Your task to perform on an android device: change the upload size in google photos Image 0: 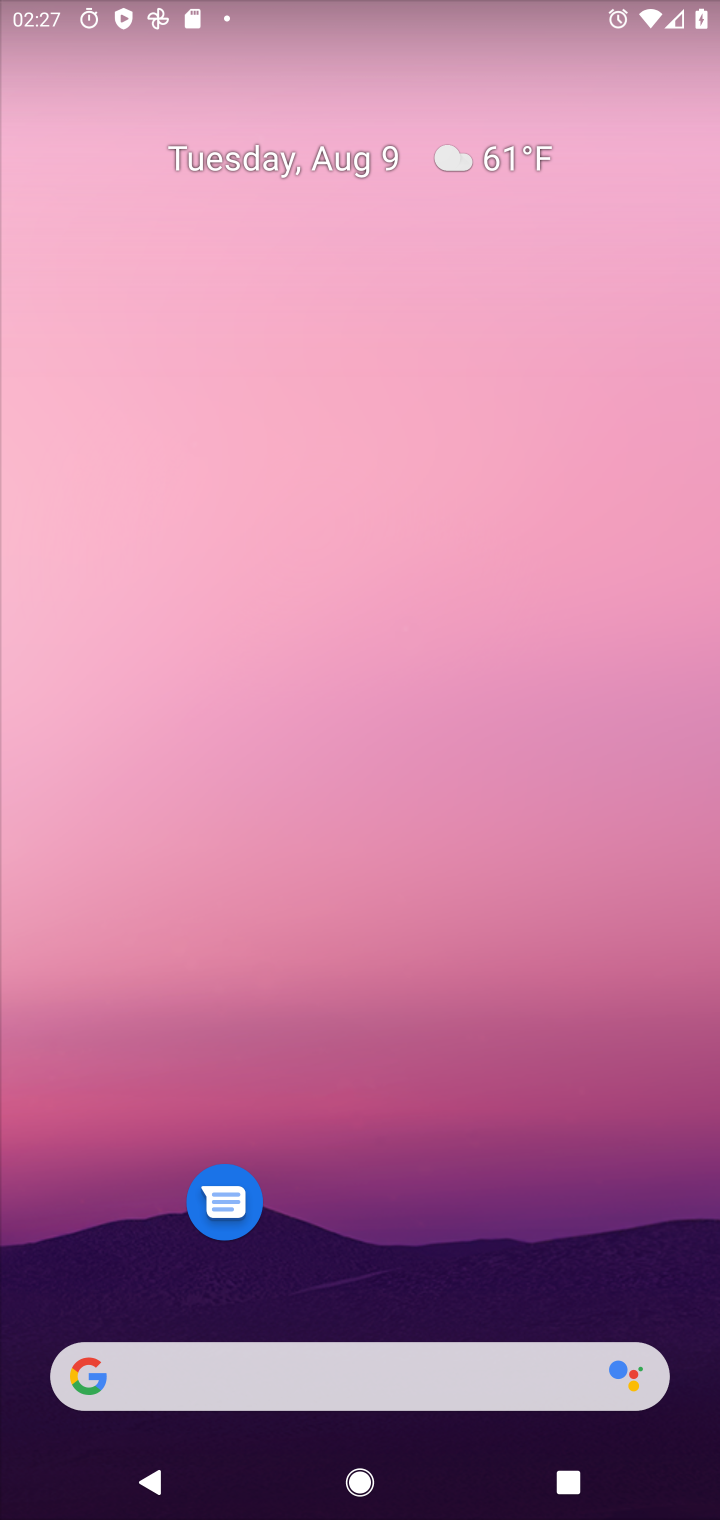
Step 0: drag from (387, 455) to (384, 51)
Your task to perform on an android device: change the upload size in google photos Image 1: 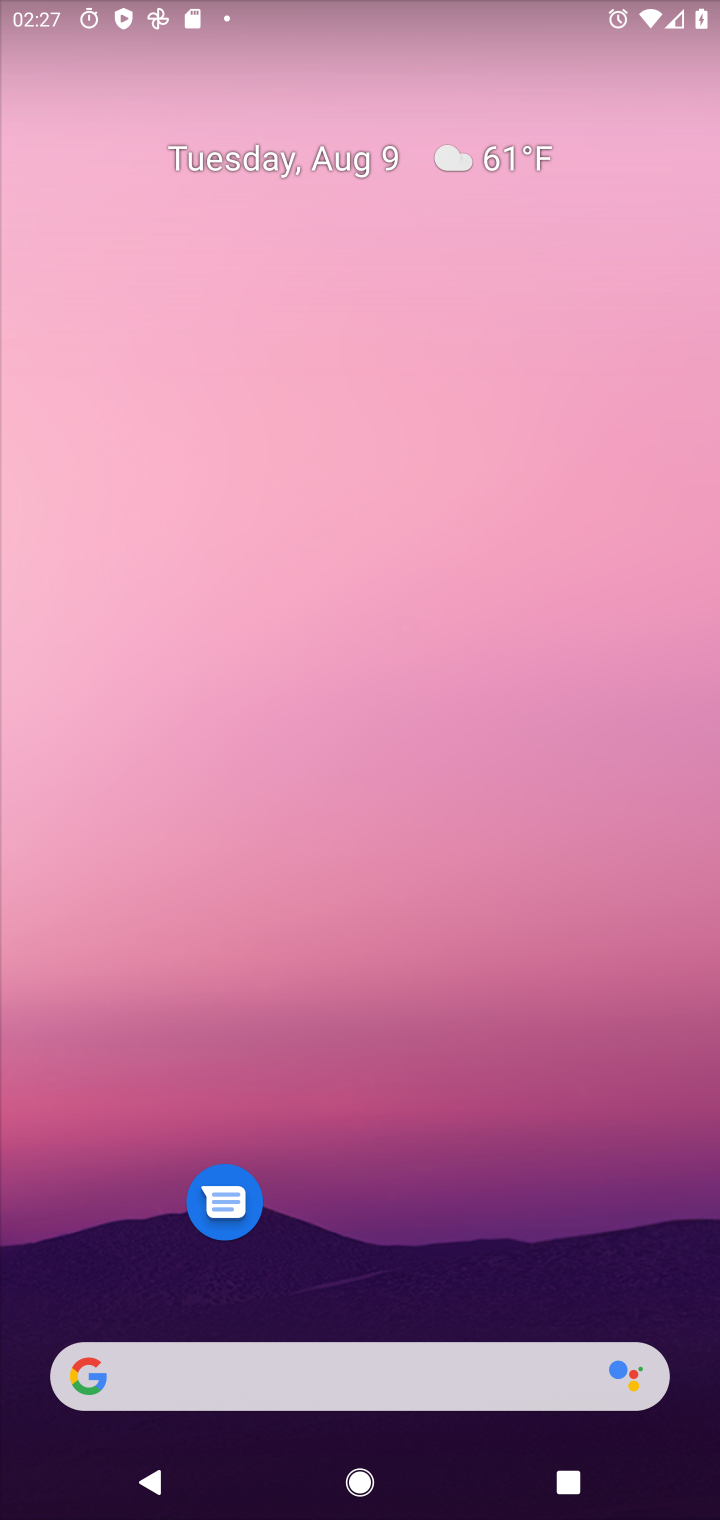
Step 1: drag from (585, 1388) to (341, 270)
Your task to perform on an android device: change the upload size in google photos Image 2: 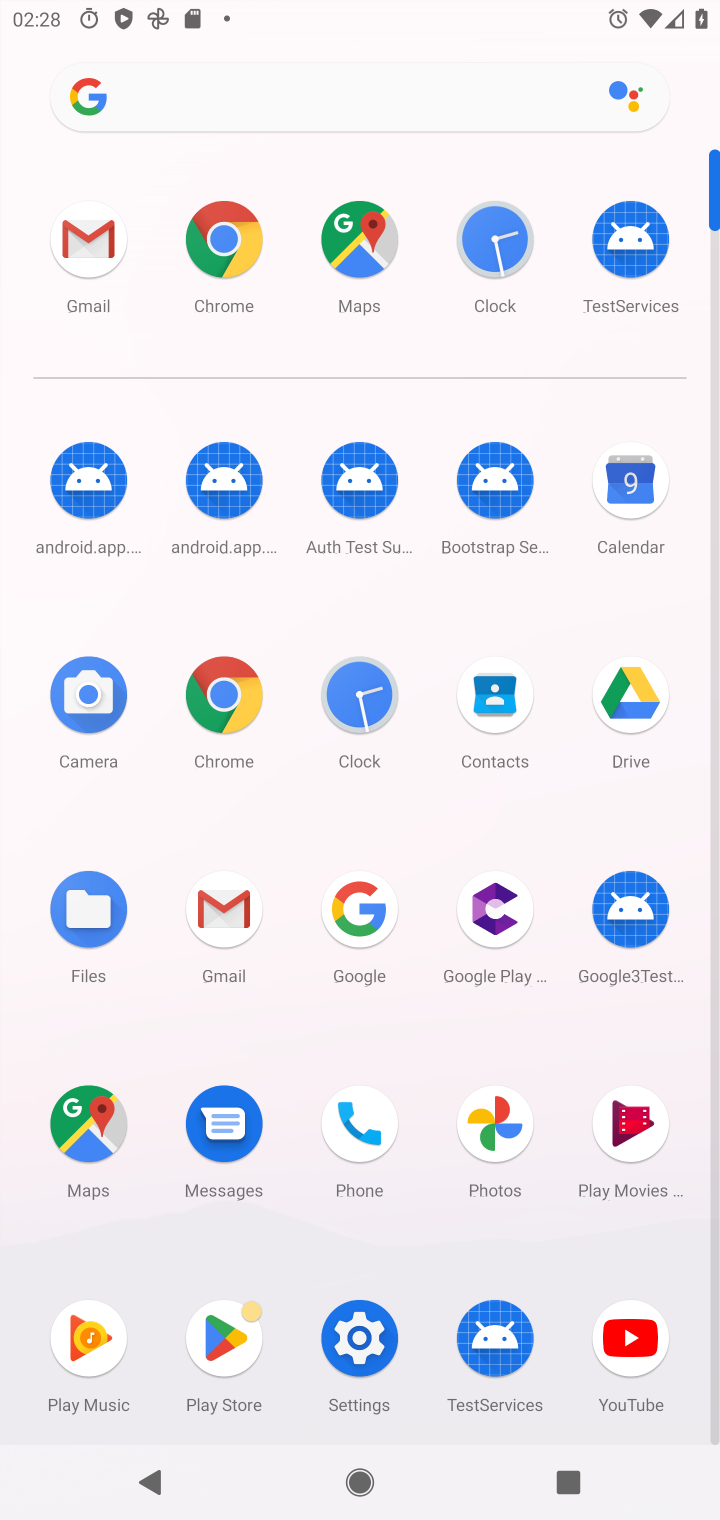
Step 2: click (486, 1113)
Your task to perform on an android device: change the upload size in google photos Image 3: 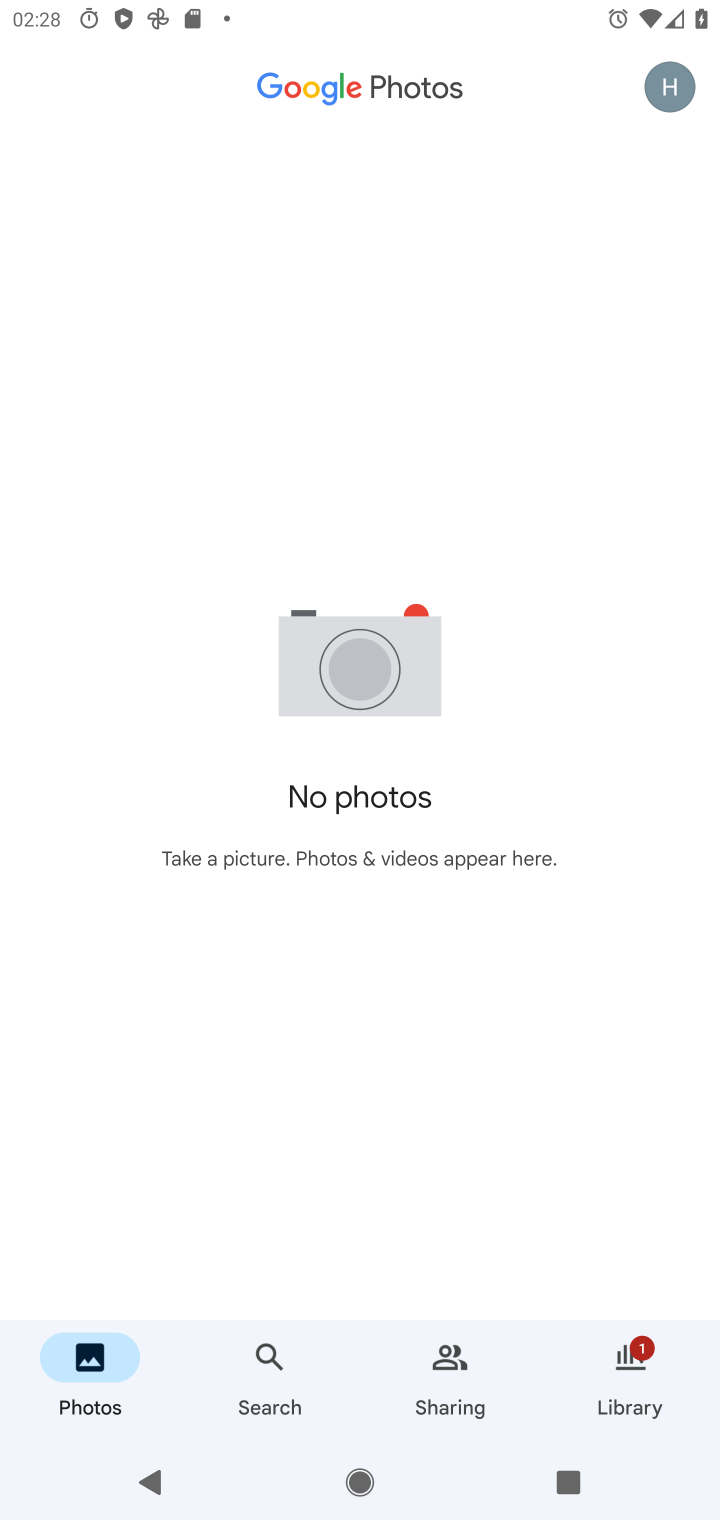
Step 3: click (680, 76)
Your task to perform on an android device: change the upload size in google photos Image 4: 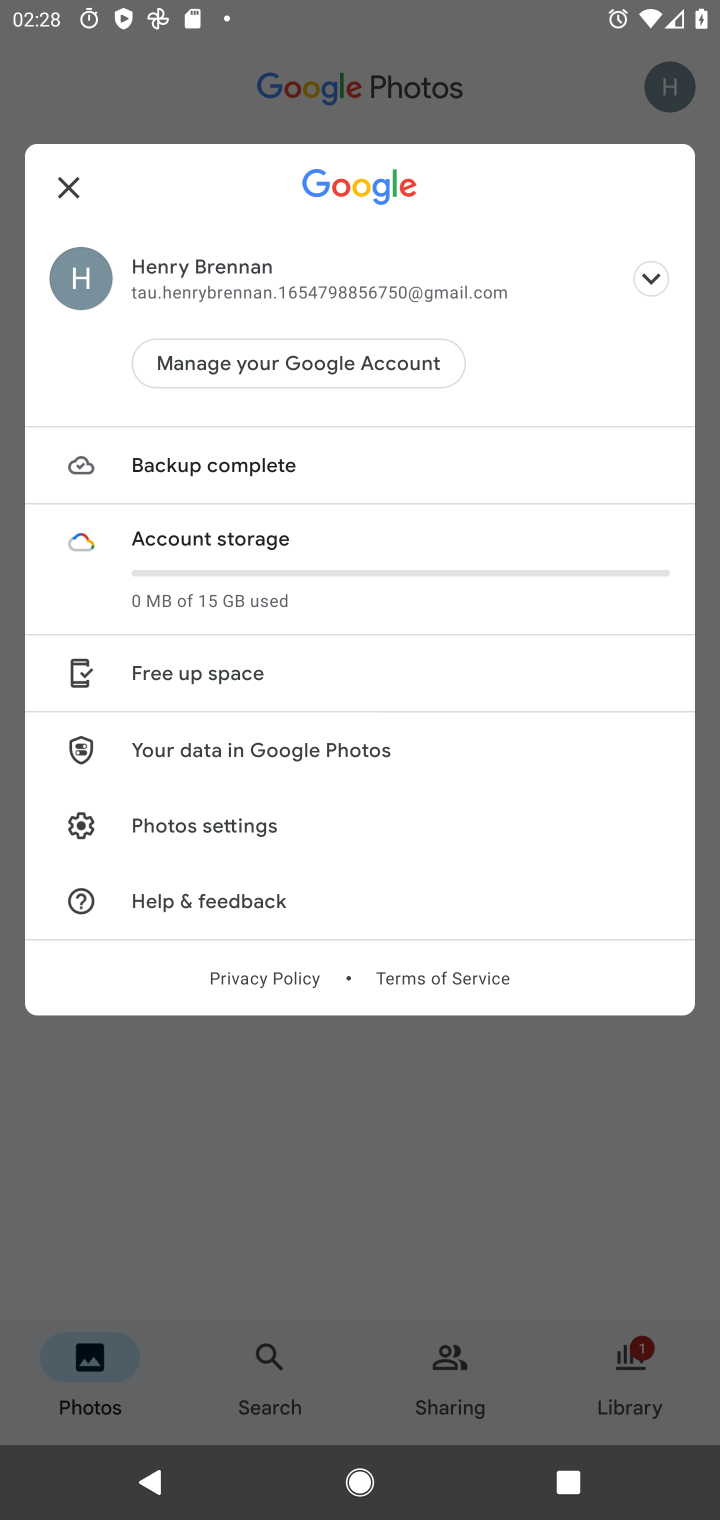
Step 4: click (114, 803)
Your task to perform on an android device: change the upload size in google photos Image 5: 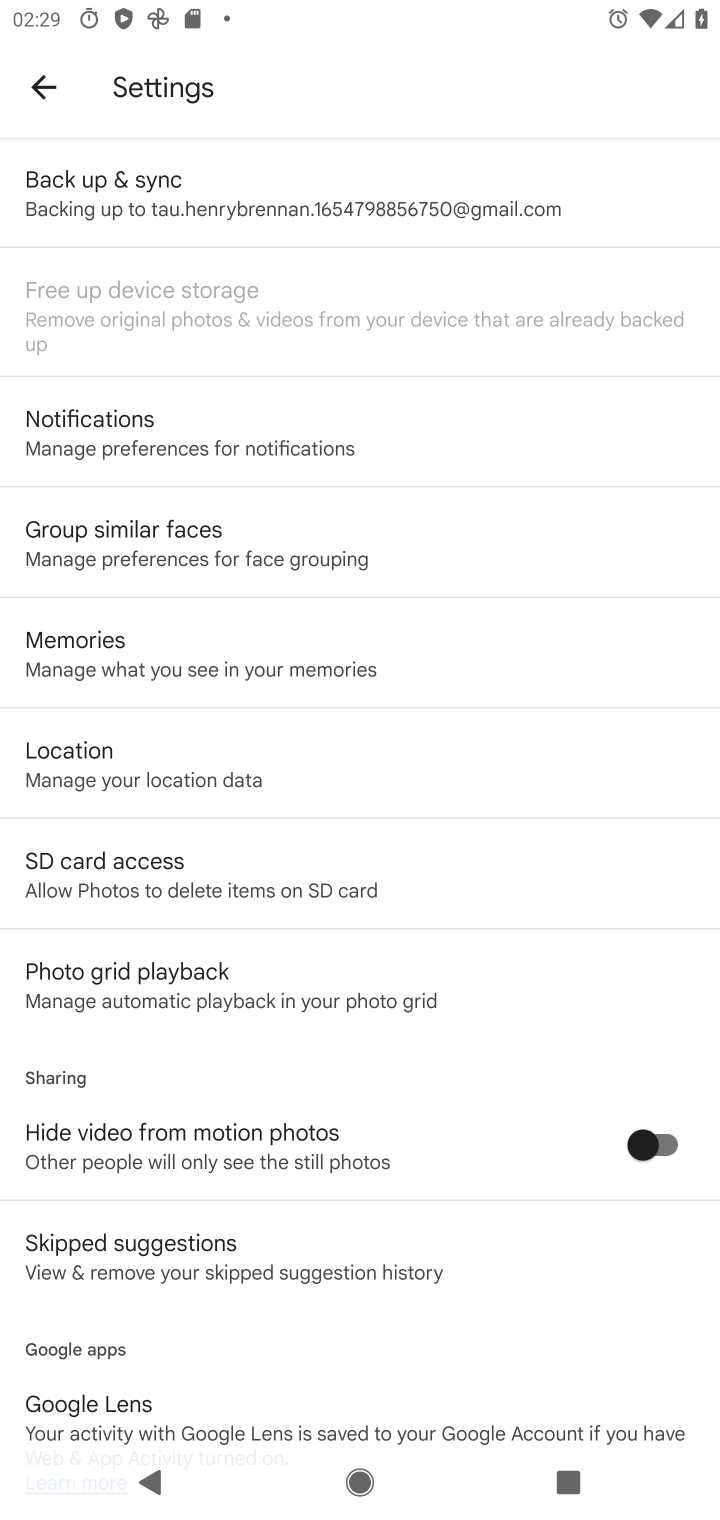
Step 5: click (66, 194)
Your task to perform on an android device: change the upload size in google photos Image 6: 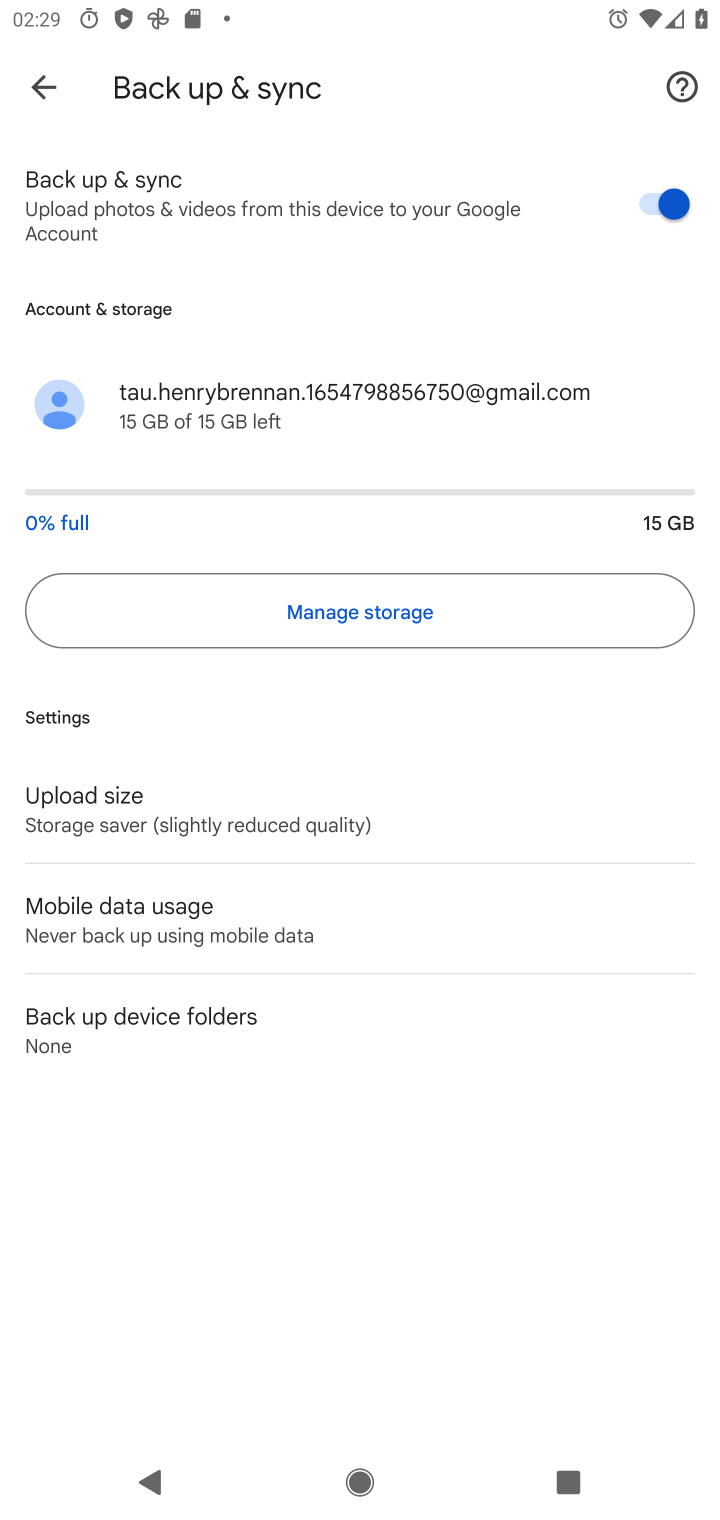
Step 6: click (131, 821)
Your task to perform on an android device: change the upload size in google photos Image 7: 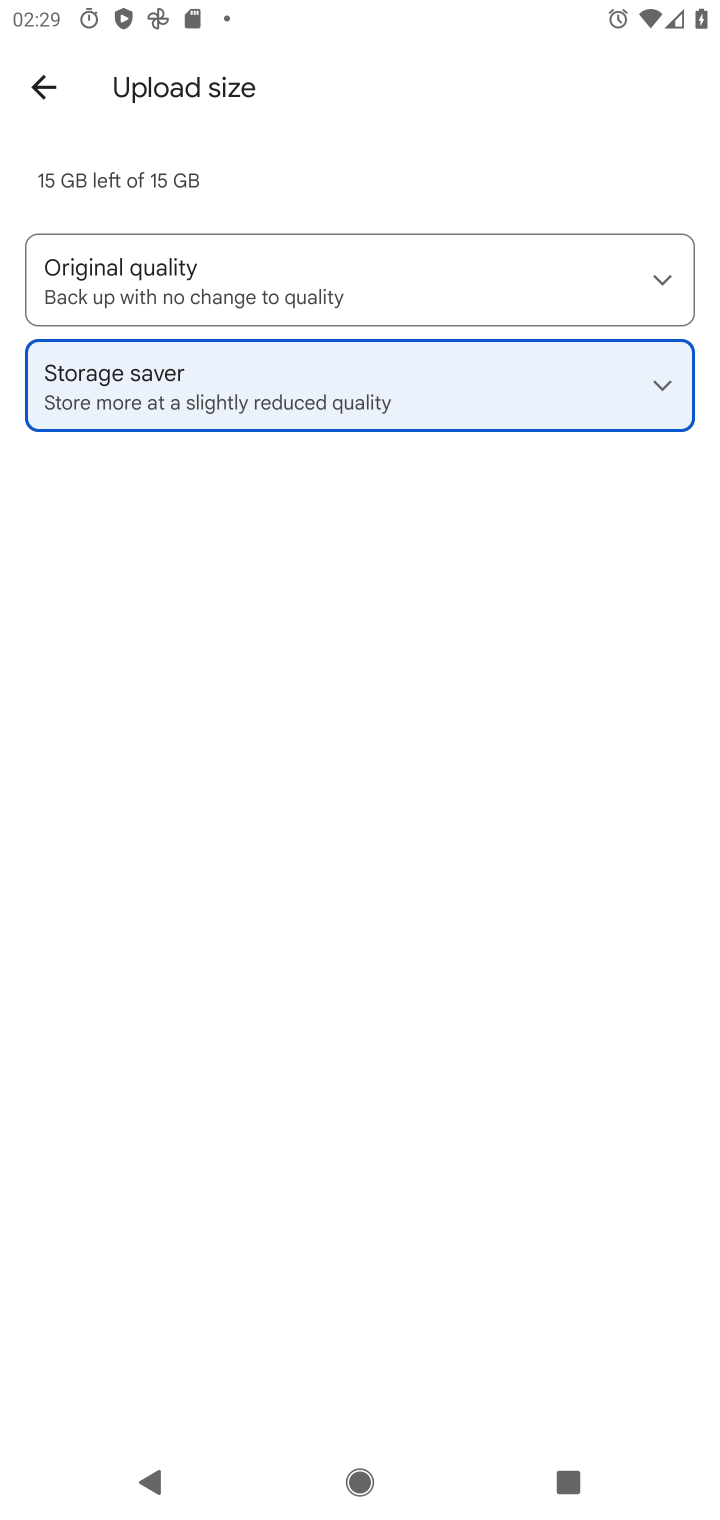
Step 7: click (187, 265)
Your task to perform on an android device: change the upload size in google photos Image 8: 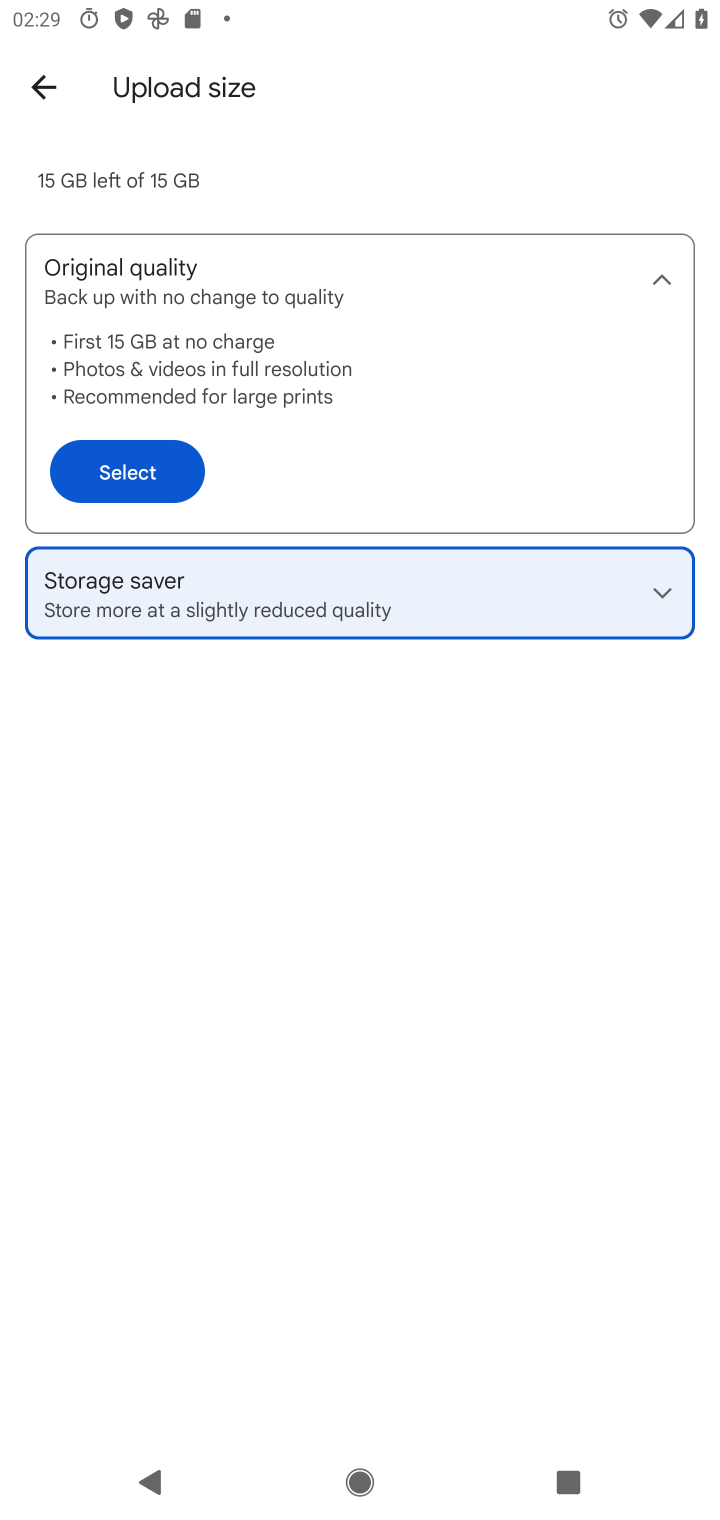
Step 8: click (111, 458)
Your task to perform on an android device: change the upload size in google photos Image 9: 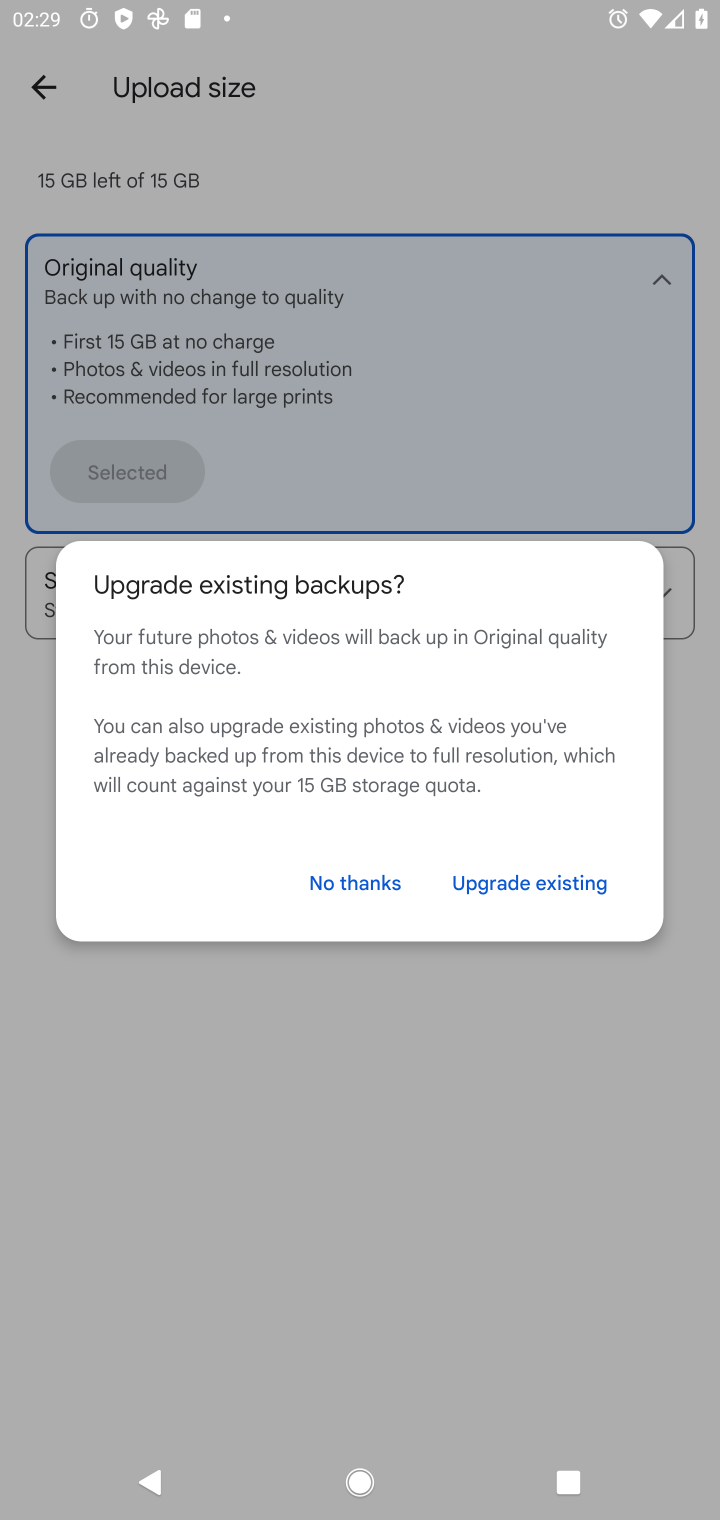
Step 9: click (556, 873)
Your task to perform on an android device: change the upload size in google photos Image 10: 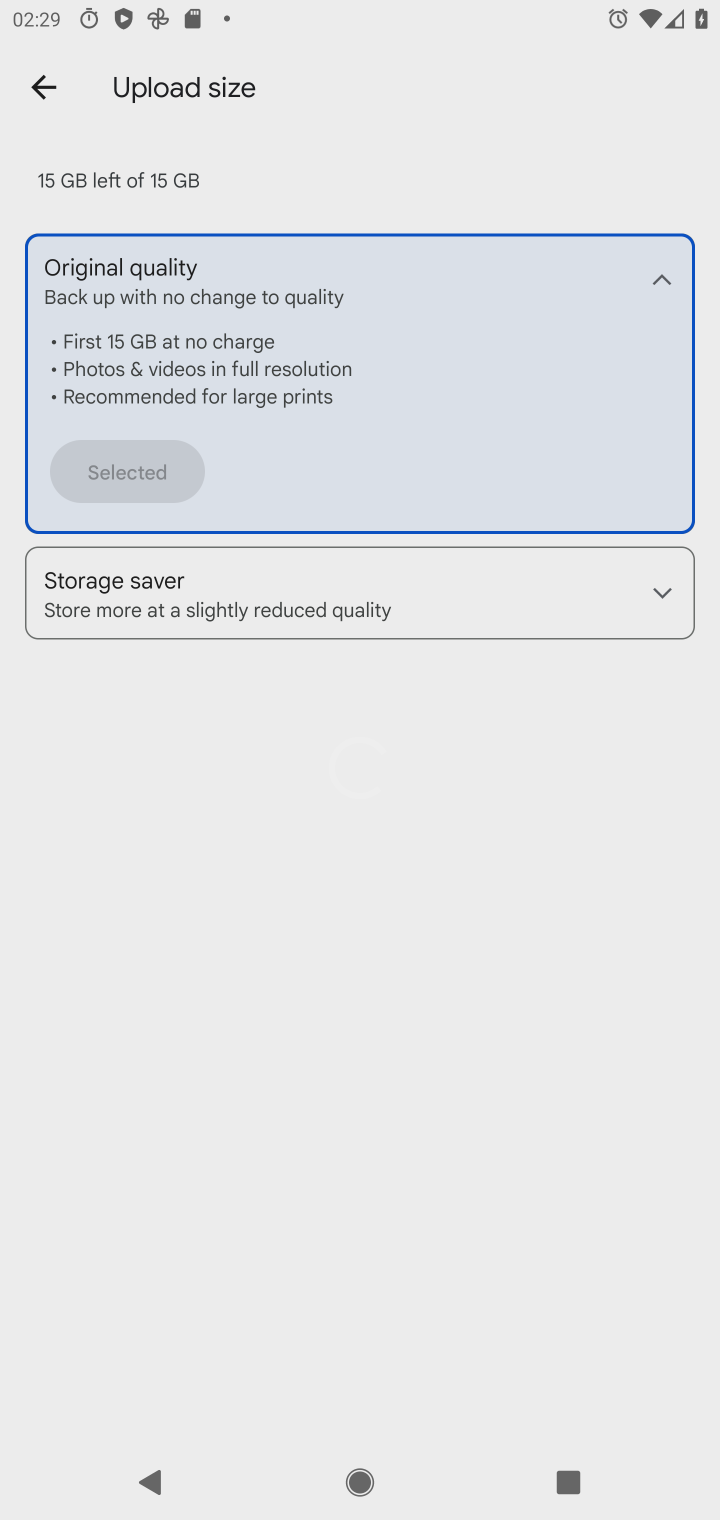
Step 10: task complete